Your task to perform on an android device: turn off improve location accuracy Image 0: 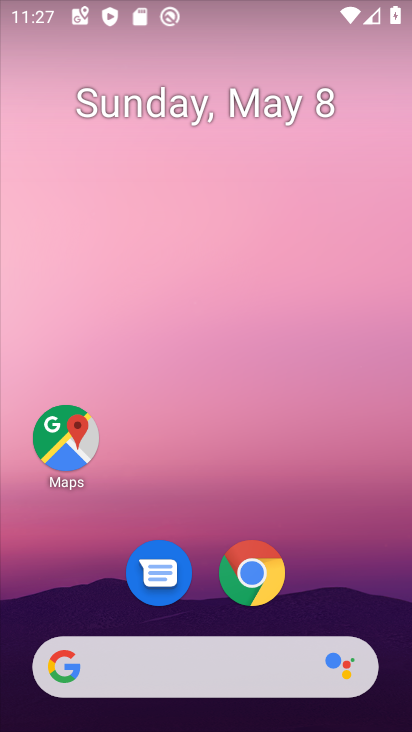
Step 0: drag from (334, 355) to (296, 5)
Your task to perform on an android device: turn off improve location accuracy Image 1: 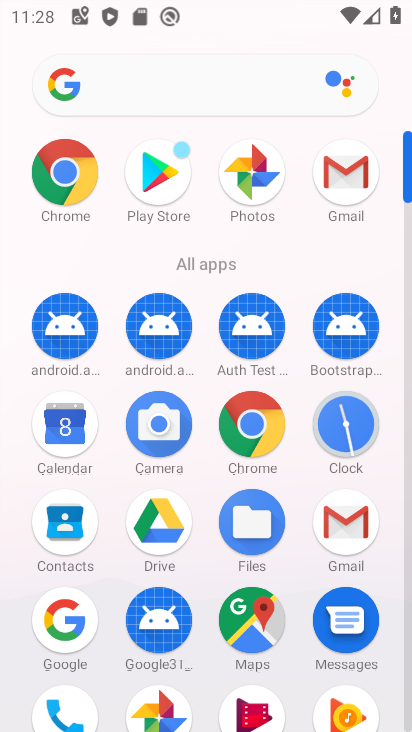
Step 1: drag from (0, 665) to (27, 259)
Your task to perform on an android device: turn off improve location accuracy Image 2: 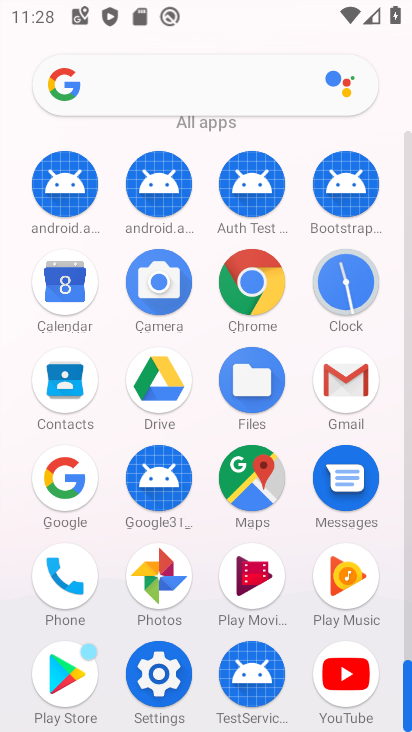
Step 2: click (159, 674)
Your task to perform on an android device: turn off improve location accuracy Image 3: 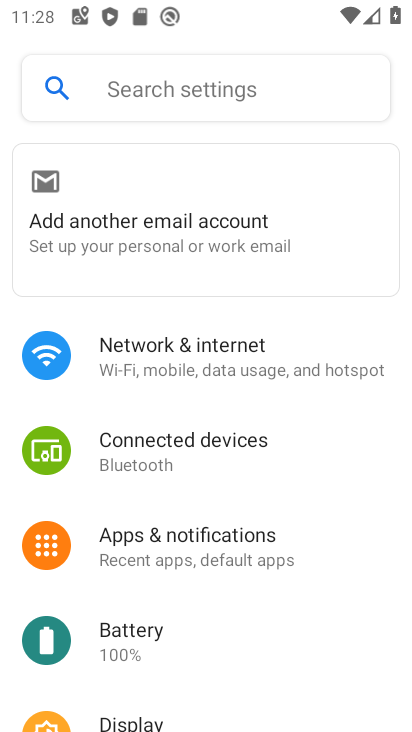
Step 3: drag from (306, 594) to (313, 192)
Your task to perform on an android device: turn off improve location accuracy Image 4: 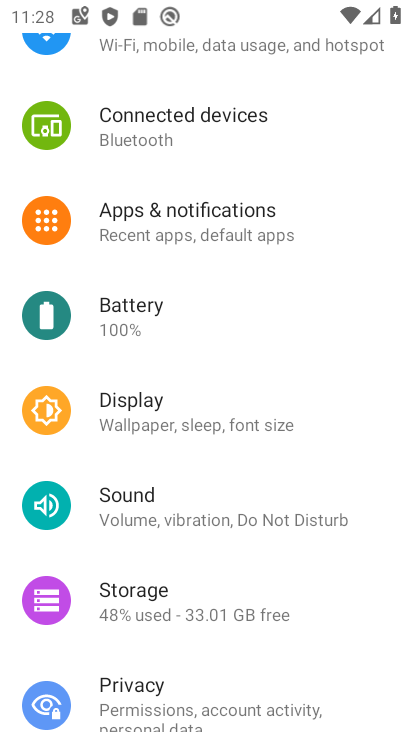
Step 4: drag from (289, 593) to (325, 128)
Your task to perform on an android device: turn off improve location accuracy Image 5: 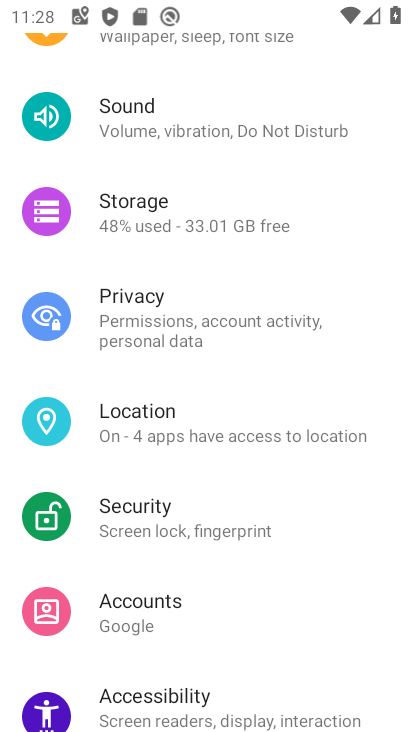
Step 5: drag from (283, 575) to (304, 104)
Your task to perform on an android device: turn off improve location accuracy Image 6: 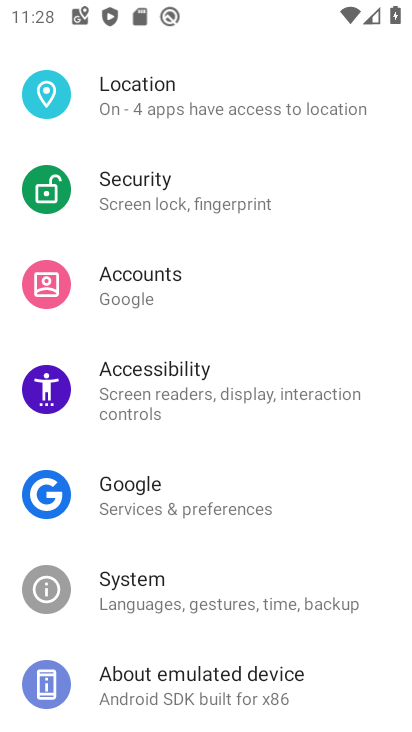
Step 6: drag from (253, 619) to (305, 117)
Your task to perform on an android device: turn off improve location accuracy Image 7: 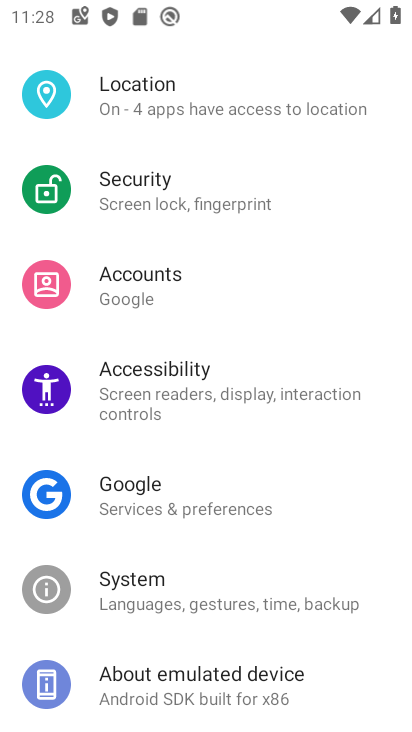
Step 7: click (206, 95)
Your task to perform on an android device: turn off improve location accuracy Image 8: 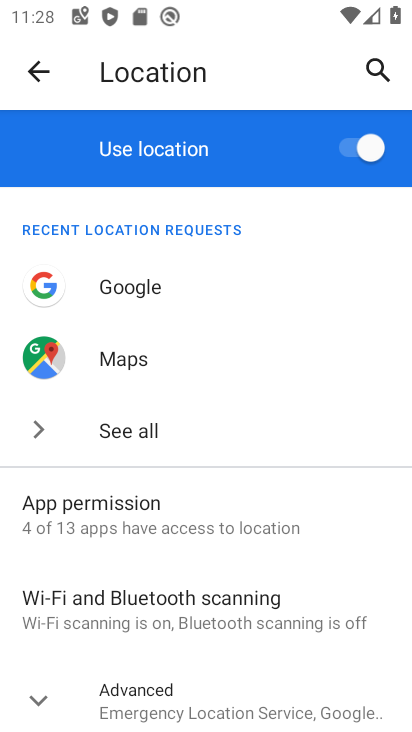
Step 8: drag from (218, 601) to (213, 203)
Your task to perform on an android device: turn off improve location accuracy Image 9: 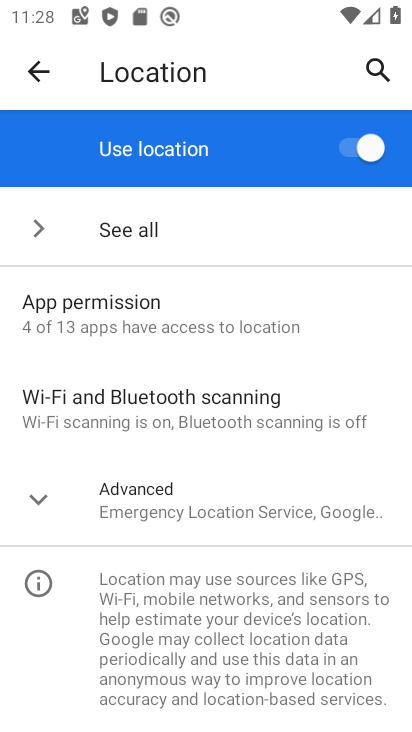
Step 9: click (141, 508)
Your task to perform on an android device: turn off improve location accuracy Image 10: 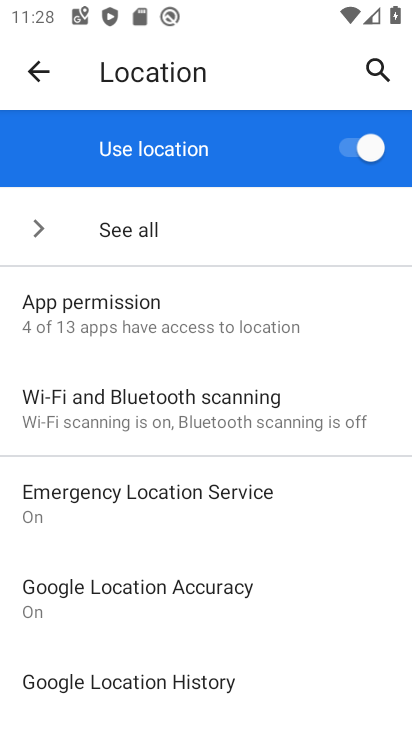
Step 10: drag from (306, 640) to (279, 300)
Your task to perform on an android device: turn off improve location accuracy Image 11: 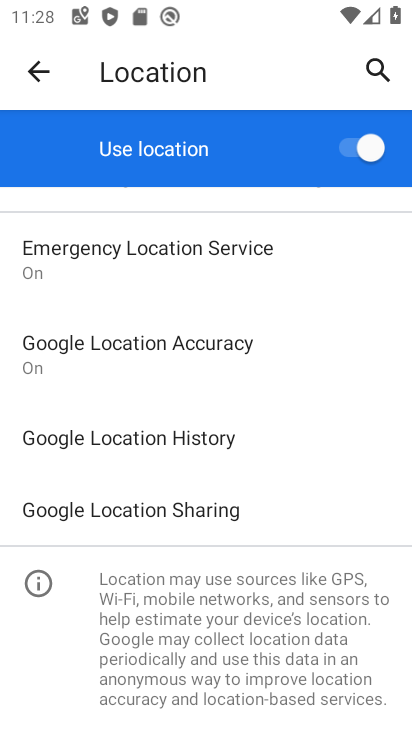
Step 11: click (160, 352)
Your task to perform on an android device: turn off improve location accuracy Image 12: 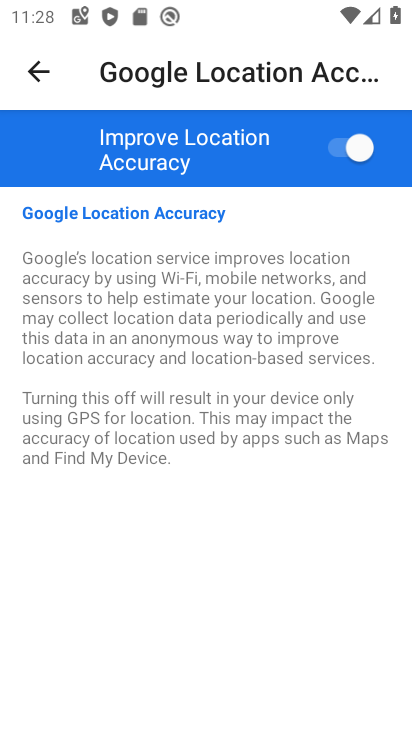
Step 12: click (339, 148)
Your task to perform on an android device: turn off improve location accuracy Image 13: 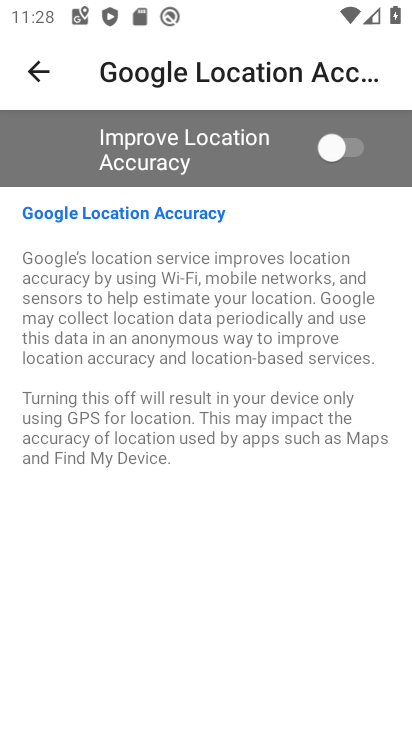
Step 13: task complete